Your task to perform on an android device: Open internet settings Image 0: 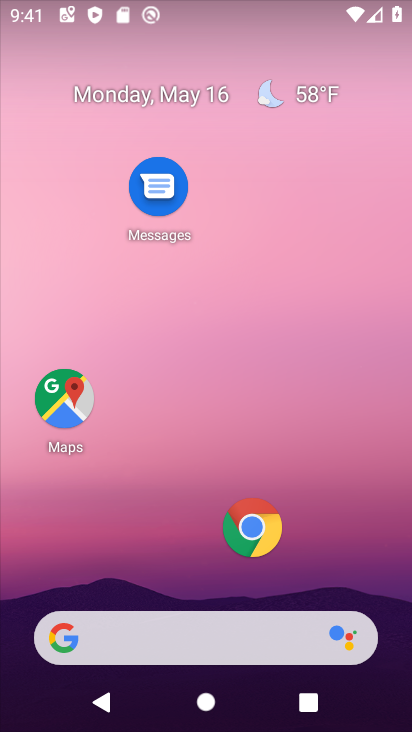
Step 0: drag from (197, 535) to (213, 128)
Your task to perform on an android device: Open internet settings Image 1: 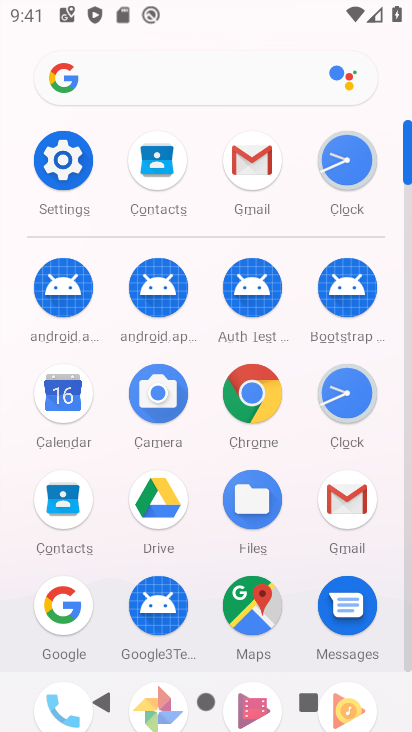
Step 1: click (67, 172)
Your task to perform on an android device: Open internet settings Image 2: 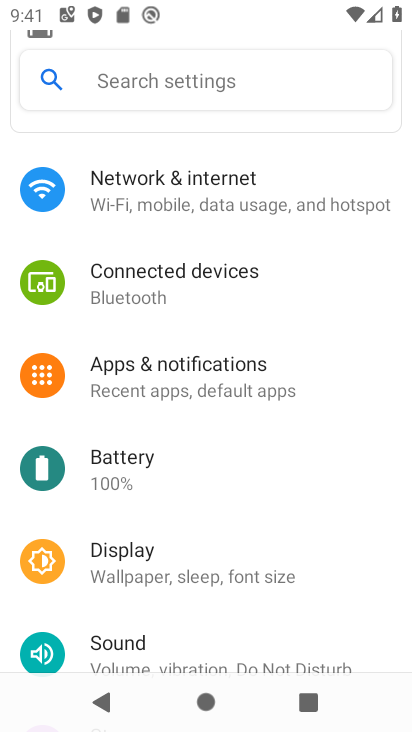
Step 2: click (146, 191)
Your task to perform on an android device: Open internet settings Image 3: 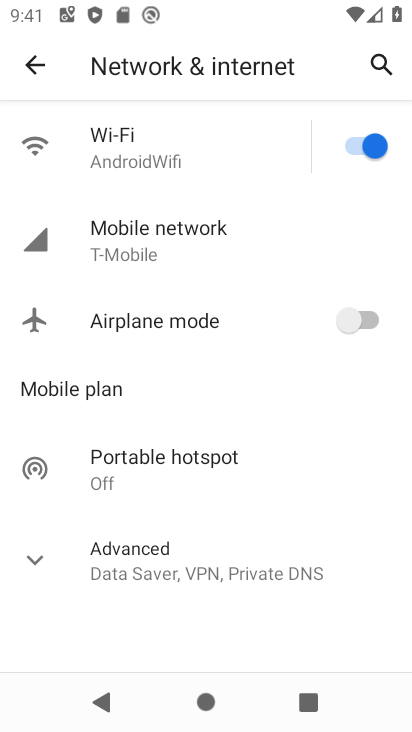
Step 3: click (132, 161)
Your task to perform on an android device: Open internet settings Image 4: 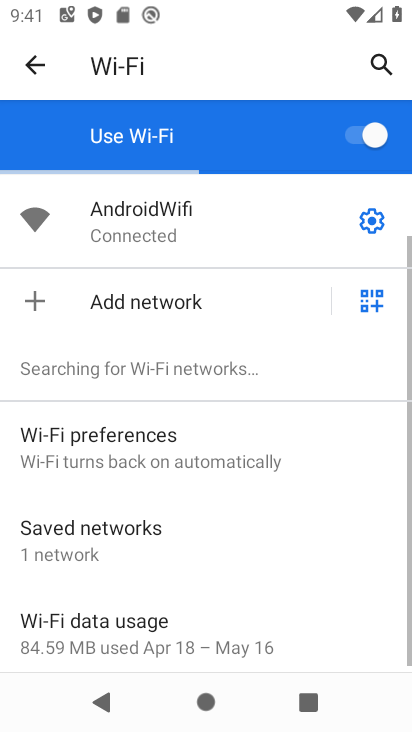
Step 4: click (368, 214)
Your task to perform on an android device: Open internet settings Image 5: 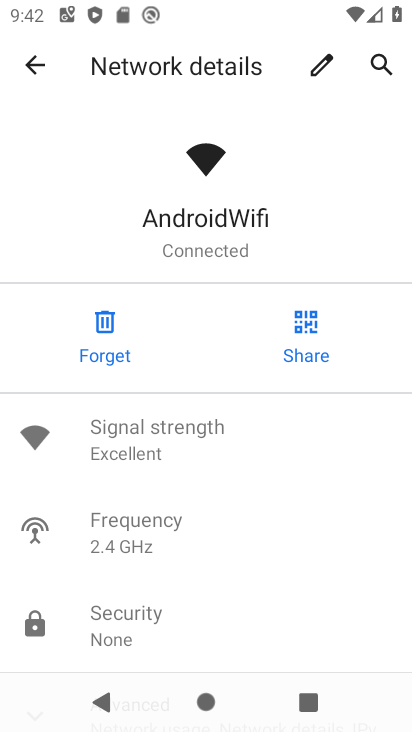
Step 5: task complete